Your task to perform on an android device: Open the calendar app Image 0: 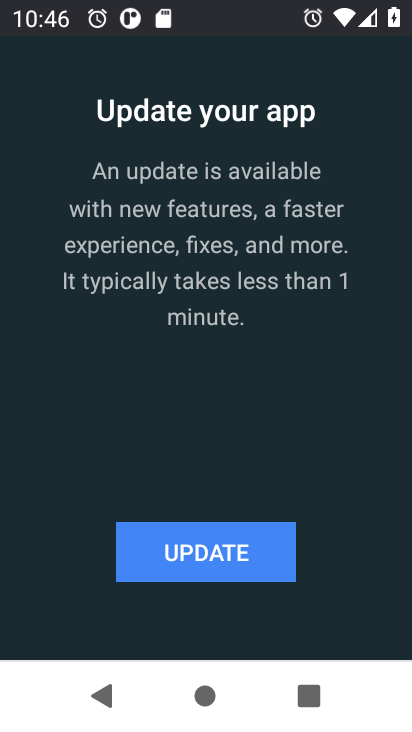
Step 0: press home button
Your task to perform on an android device: Open the calendar app Image 1: 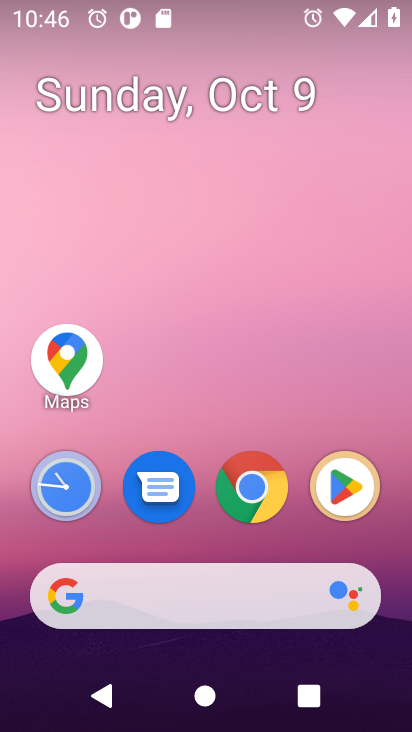
Step 1: drag from (198, 554) to (173, 46)
Your task to perform on an android device: Open the calendar app Image 2: 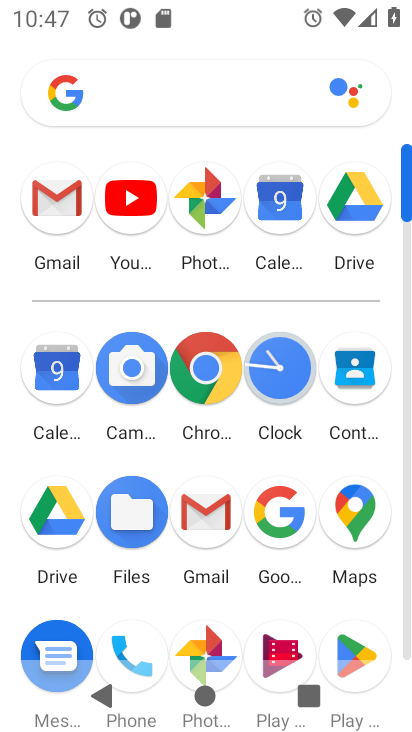
Step 2: click (51, 380)
Your task to perform on an android device: Open the calendar app Image 3: 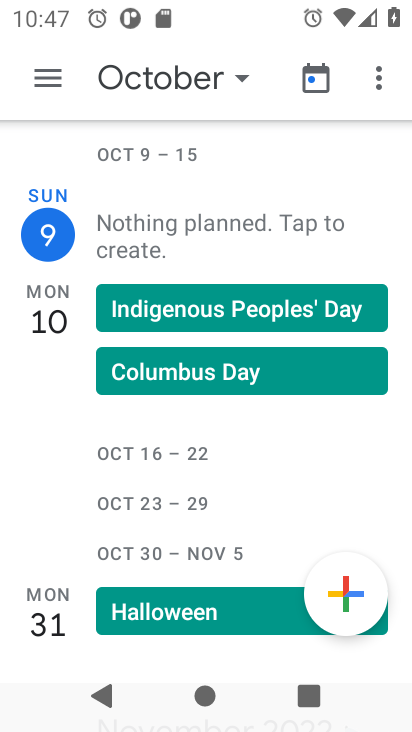
Step 3: task complete